Your task to perform on an android device: Show me popular videos on Youtube Image 0: 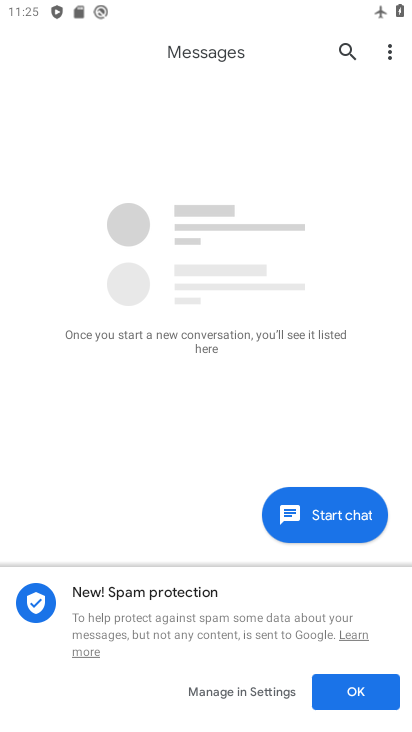
Step 0: press home button
Your task to perform on an android device: Show me popular videos on Youtube Image 1: 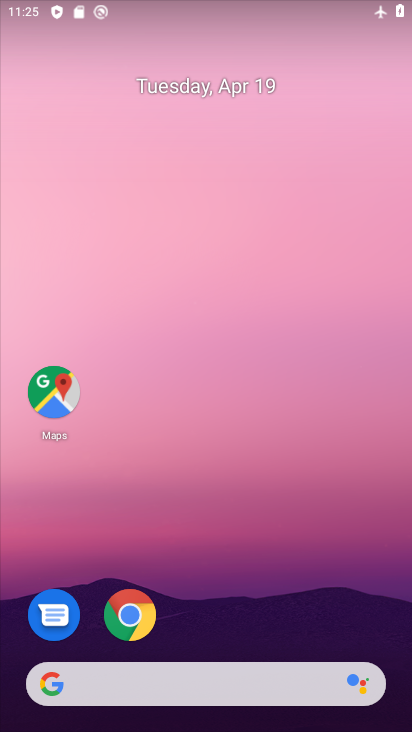
Step 1: drag from (238, 620) to (235, 288)
Your task to perform on an android device: Show me popular videos on Youtube Image 2: 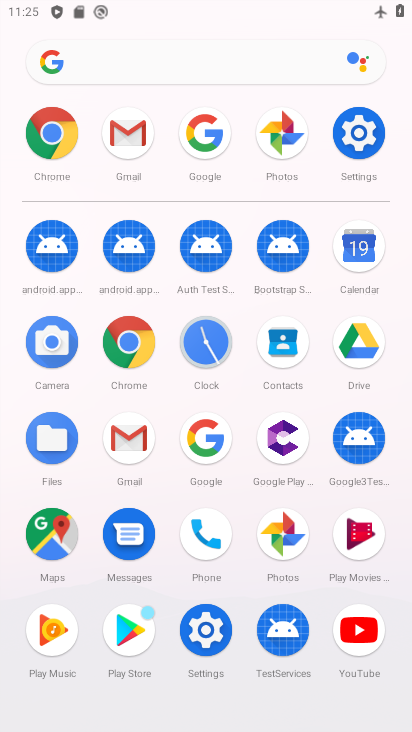
Step 2: click (366, 621)
Your task to perform on an android device: Show me popular videos on Youtube Image 3: 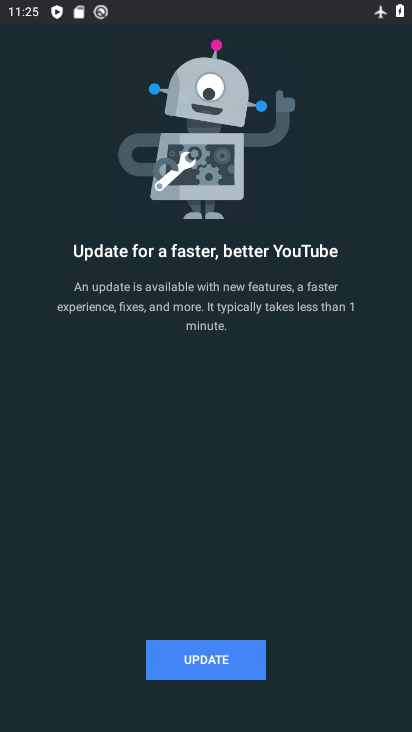
Step 3: click (196, 654)
Your task to perform on an android device: Show me popular videos on Youtube Image 4: 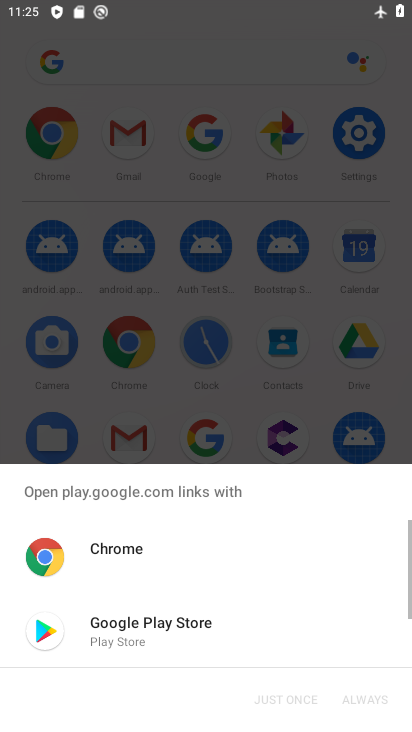
Step 4: click (161, 622)
Your task to perform on an android device: Show me popular videos on Youtube Image 5: 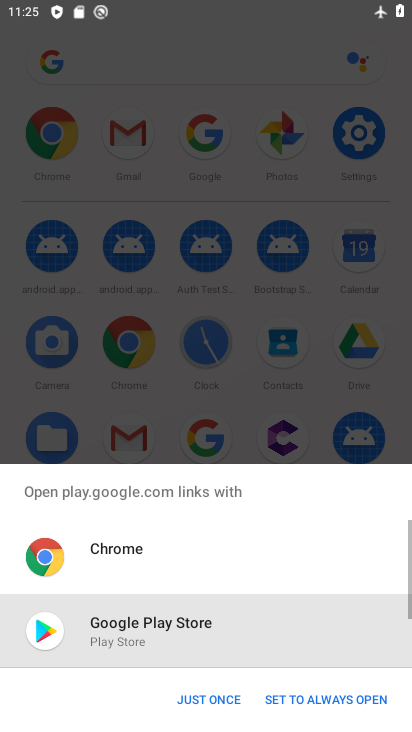
Step 5: click (223, 688)
Your task to perform on an android device: Show me popular videos on Youtube Image 6: 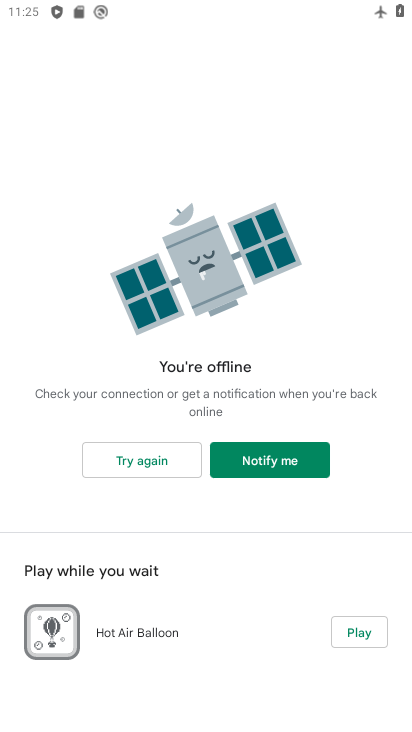
Step 6: press back button
Your task to perform on an android device: Show me popular videos on Youtube Image 7: 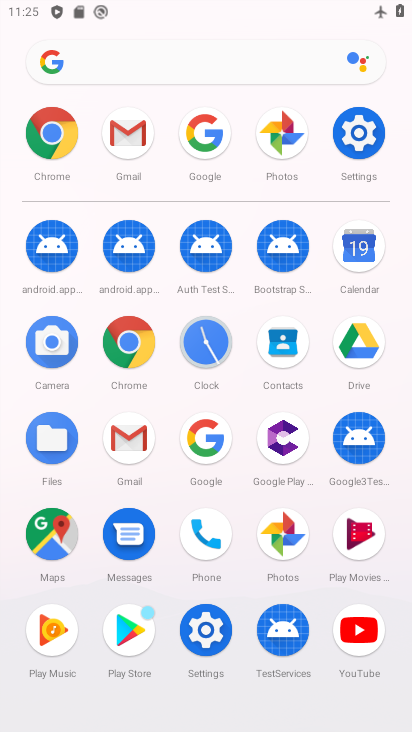
Step 7: click (363, 605)
Your task to perform on an android device: Show me popular videos on Youtube Image 8: 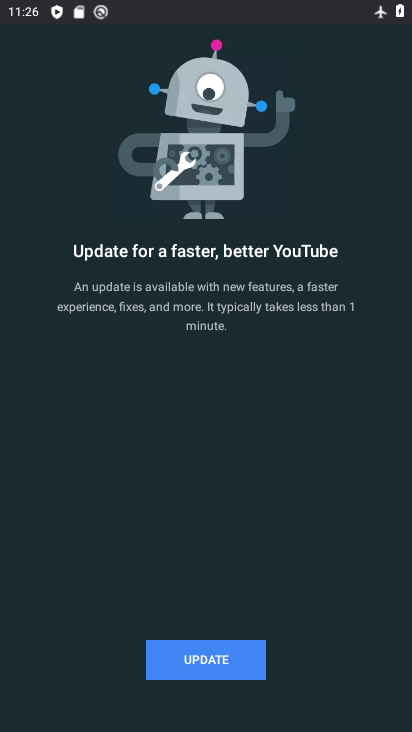
Step 8: task complete